Your task to perform on an android device: Open eBay Image 0: 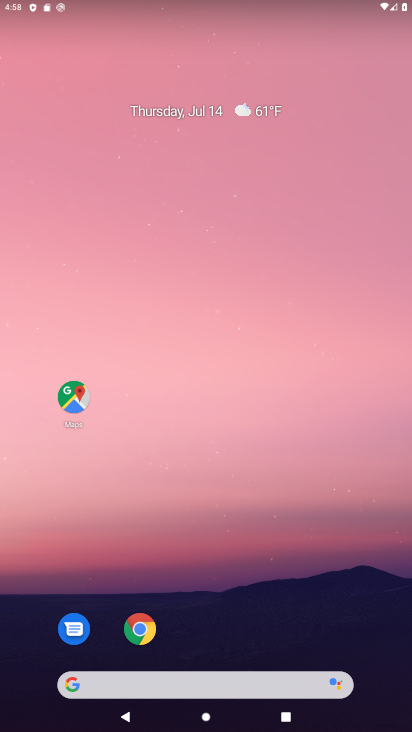
Step 0: drag from (265, 522) to (197, 23)
Your task to perform on an android device: Open eBay Image 1: 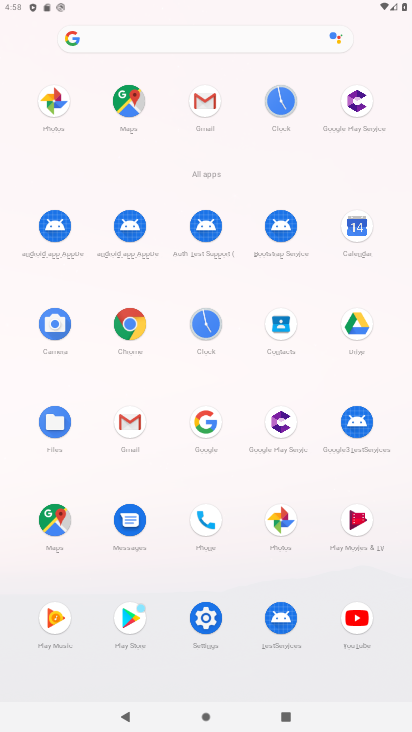
Step 1: click (125, 315)
Your task to perform on an android device: Open eBay Image 2: 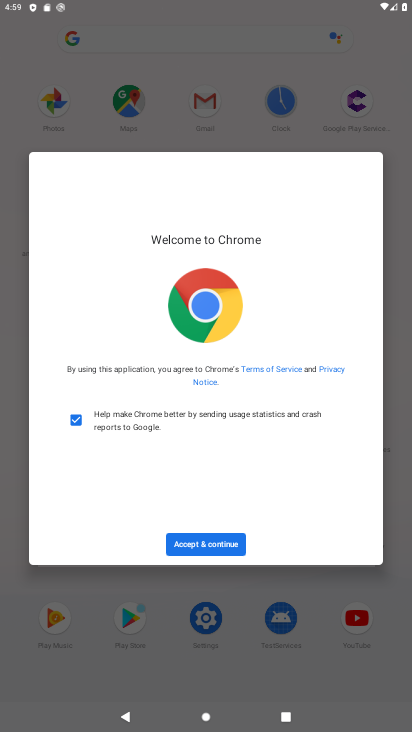
Step 2: click (209, 544)
Your task to perform on an android device: Open eBay Image 3: 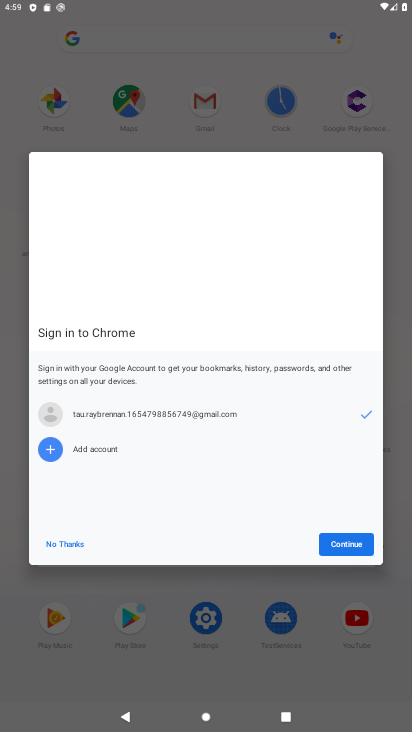
Step 3: click (353, 534)
Your task to perform on an android device: Open eBay Image 4: 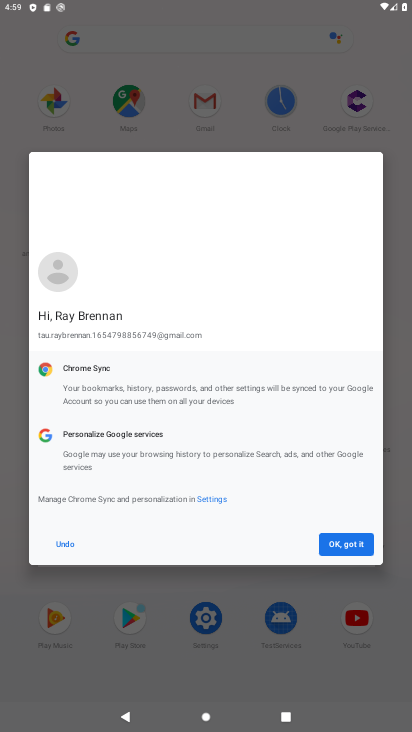
Step 4: click (353, 534)
Your task to perform on an android device: Open eBay Image 5: 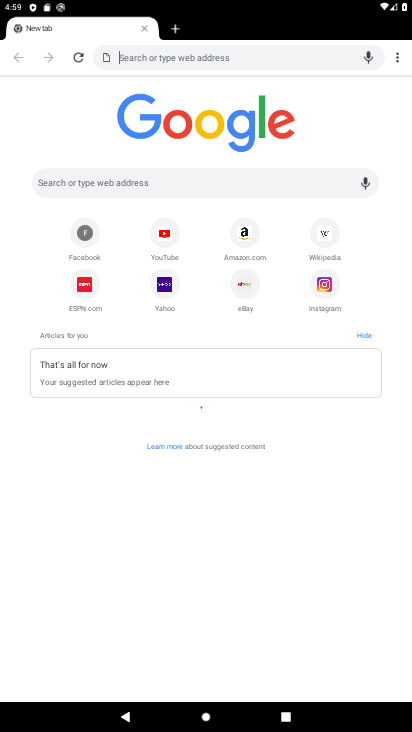
Step 5: click (130, 56)
Your task to perform on an android device: Open eBay Image 6: 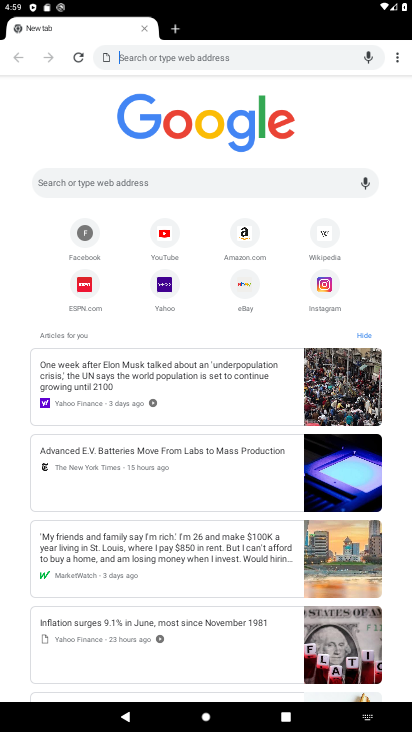
Step 6: type "eBay"
Your task to perform on an android device: Open eBay Image 7: 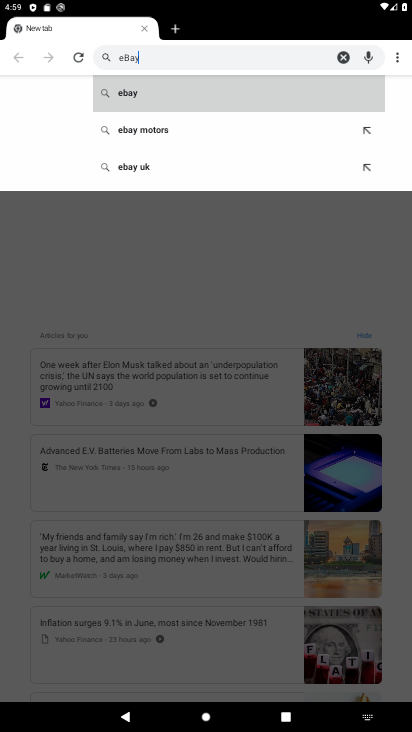
Step 7: click (117, 91)
Your task to perform on an android device: Open eBay Image 8: 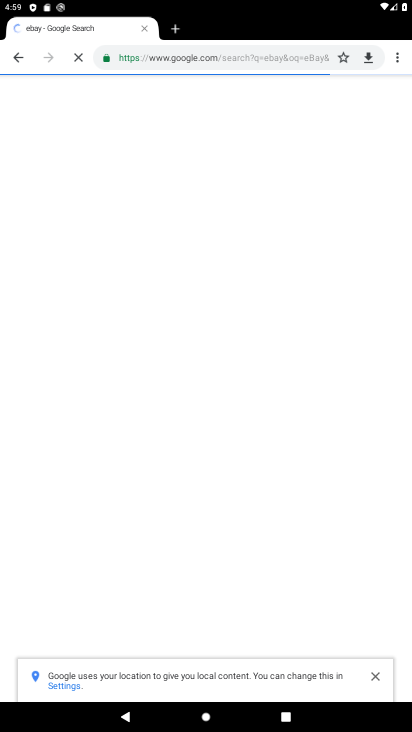
Step 8: task complete